Your task to perform on an android device: open chrome and create a bookmark for the current page Image 0: 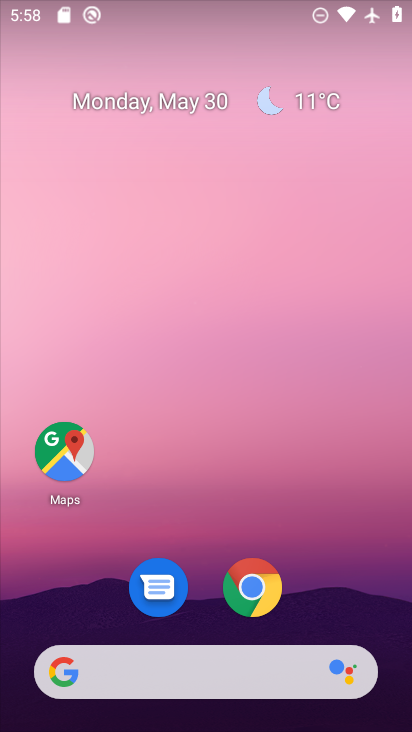
Step 0: drag from (239, 192) to (179, 10)
Your task to perform on an android device: open chrome and create a bookmark for the current page Image 1: 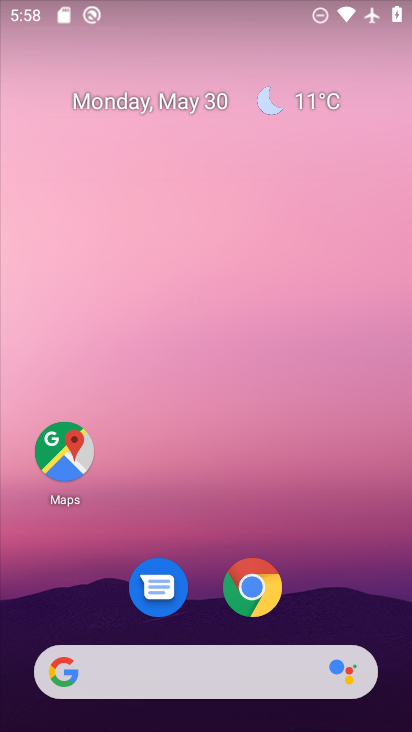
Step 1: drag from (31, 608) to (12, 56)
Your task to perform on an android device: open chrome and create a bookmark for the current page Image 2: 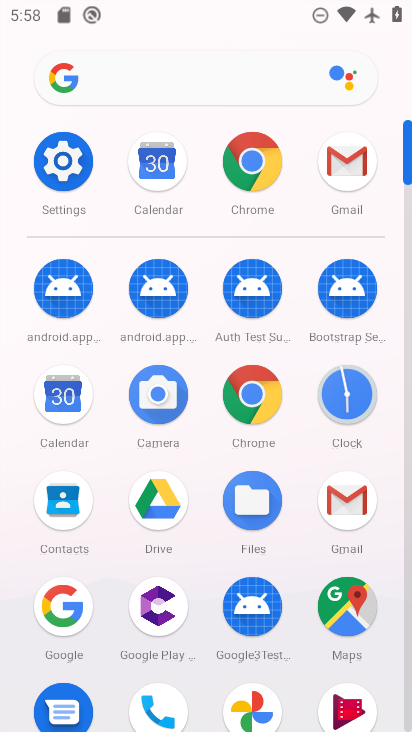
Step 2: drag from (13, 650) to (27, 237)
Your task to perform on an android device: open chrome and create a bookmark for the current page Image 3: 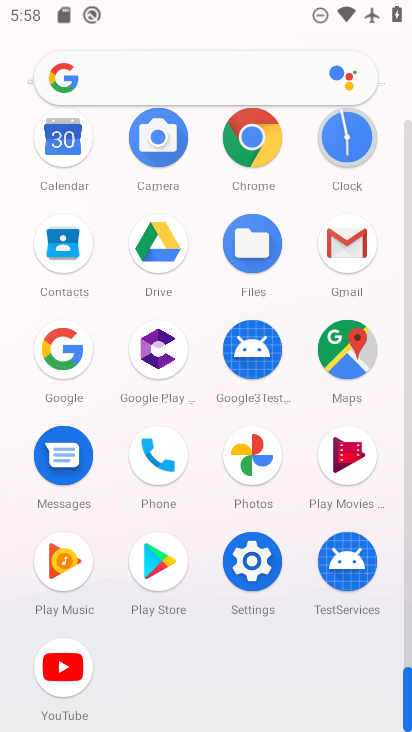
Step 3: click (251, 132)
Your task to perform on an android device: open chrome and create a bookmark for the current page Image 4: 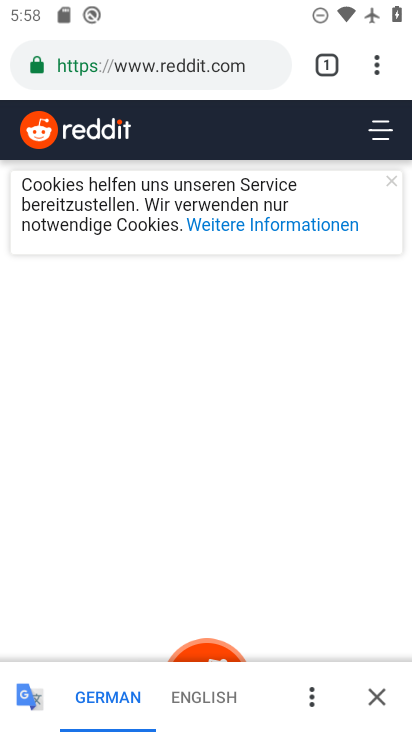
Step 4: drag from (375, 67) to (187, 243)
Your task to perform on an android device: open chrome and create a bookmark for the current page Image 5: 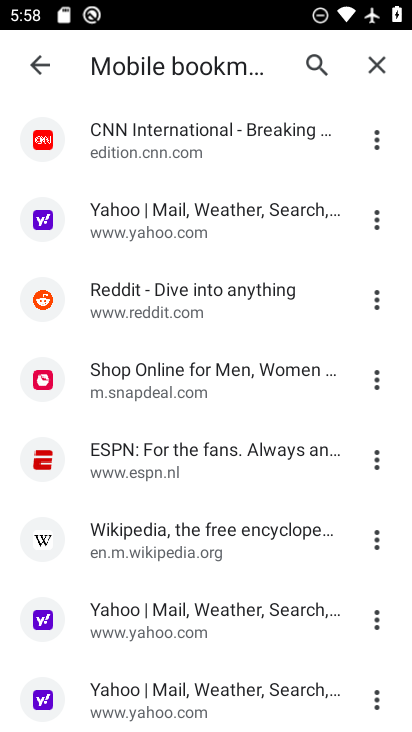
Step 5: click (53, 60)
Your task to perform on an android device: open chrome and create a bookmark for the current page Image 6: 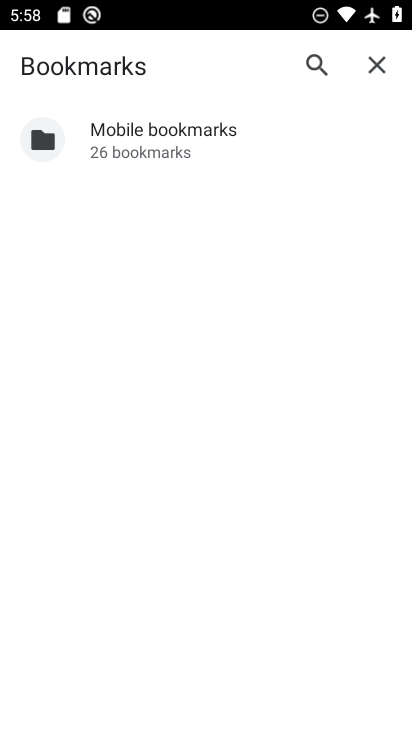
Step 6: click (385, 60)
Your task to perform on an android device: open chrome and create a bookmark for the current page Image 7: 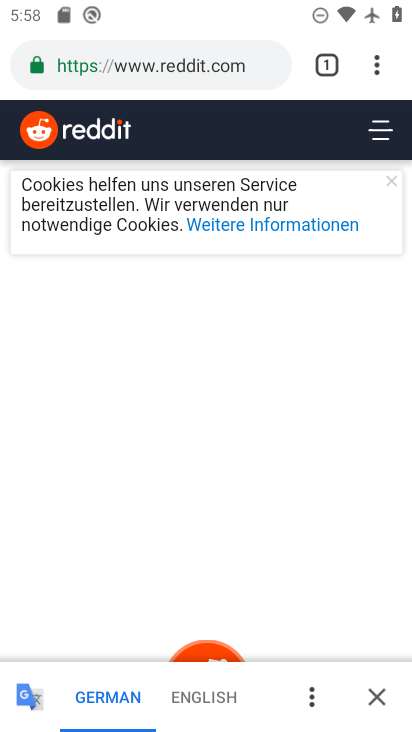
Step 7: task complete